Your task to perform on an android device: clear all cookies in the chrome app Image 0: 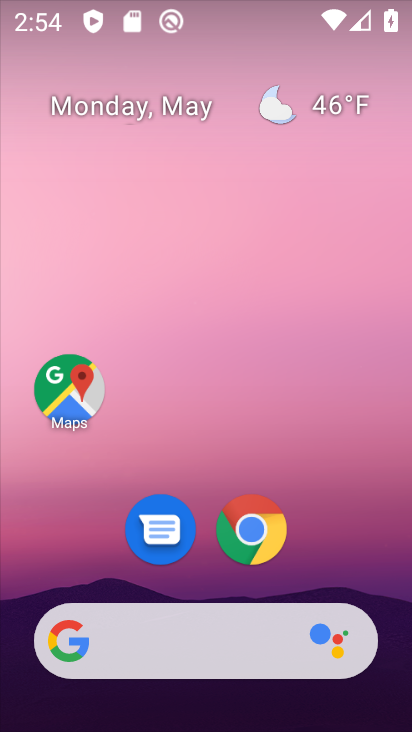
Step 0: drag from (368, 583) to (358, 177)
Your task to perform on an android device: clear all cookies in the chrome app Image 1: 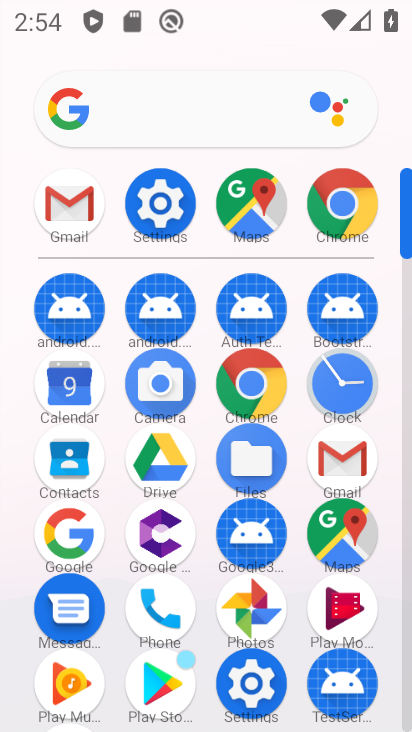
Step 1: click (269, 377)
Your task to perform on an android device: clear all cookies in the chrome app Image 2: 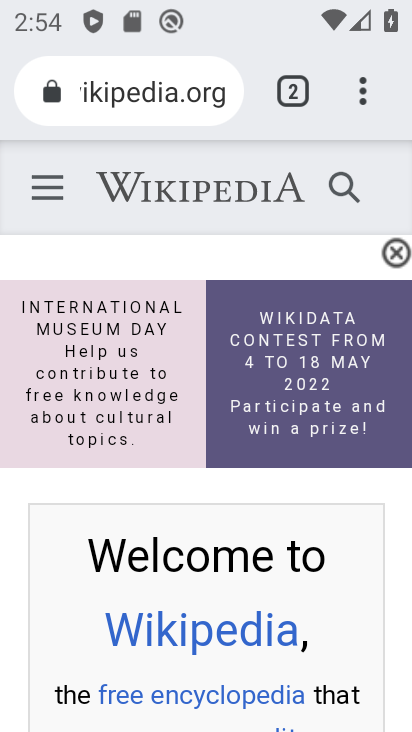
Step 2: drag from (365, 103) to (120, 530)
Your task to perform on an android device: clear all cookies in the chrome app Image 3: 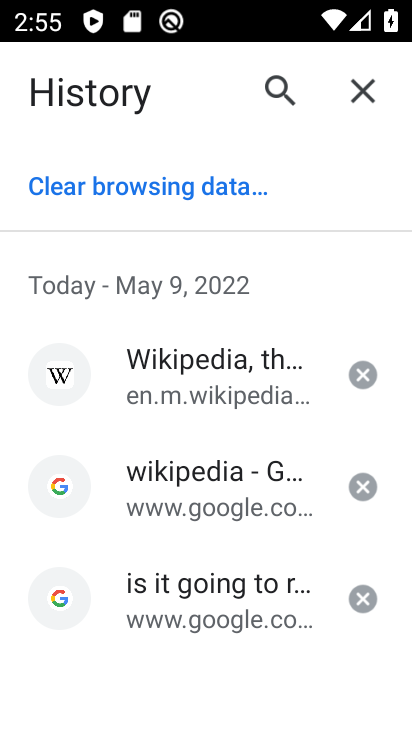
Step 3: click (141, 186)
Your task to perform on an android device: clear all cookies in the chrome app Image 4: 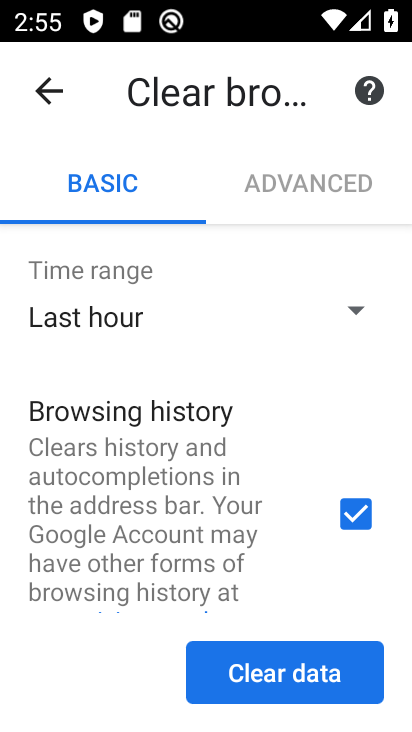
Step 4: drag from (180, 528) to (189, 322)
Your task to perform on an android device: clear all cookies in the chrome app Image 5: 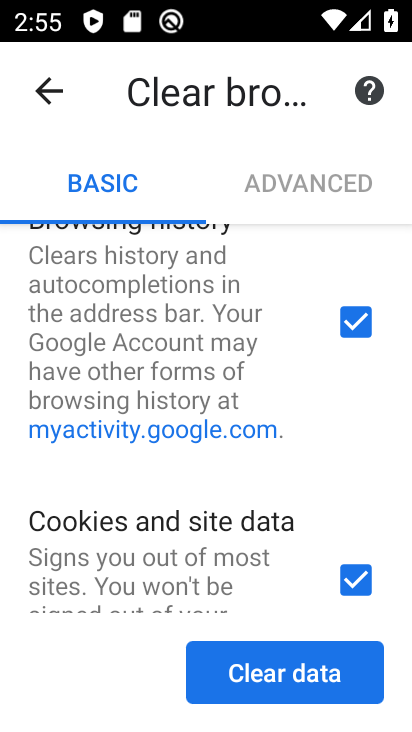
Step 5: drag from (177, 520) to (213, 352)
Your task to perform on an android device: clear all cookies in the chrome app Image 6: 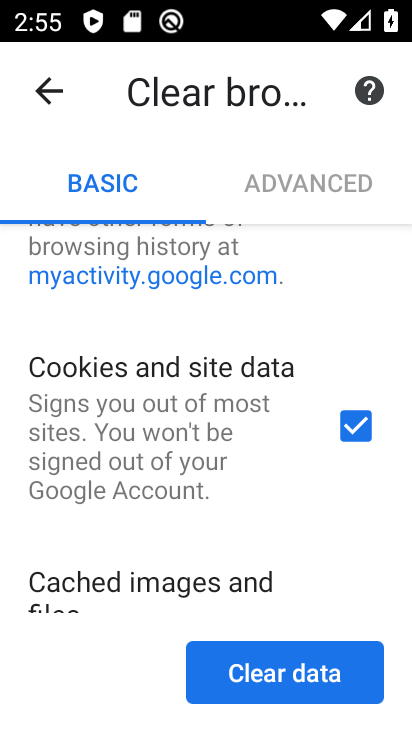
Step 6: click (277, 669)
Your task to perform on an android device: clear all cookies in the chrome app Image 7: 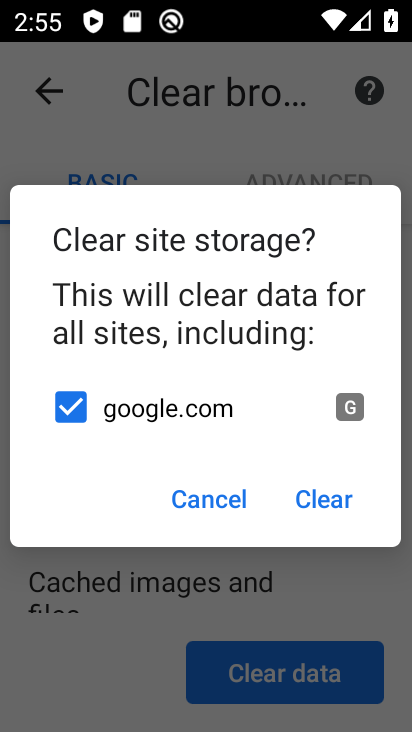
Step 7: click (334, 508)
Your task to perform on an android device: clear all cookies in the chrome app Image 8: 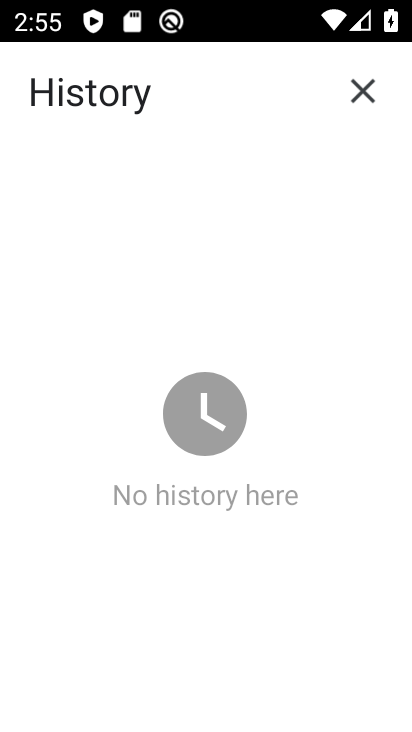
Step 8: task complete